Your task to perform on an android device: change the upload size in google photos Image 0: 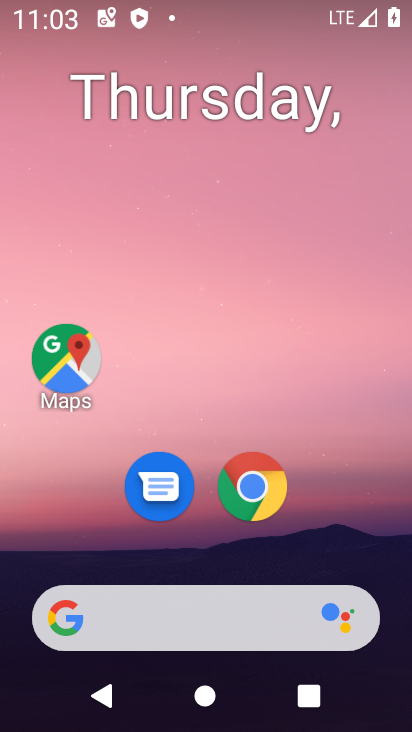
Step 0: drag from (138, 429) to (20, 29)
Your task to perform on an android device: change the upload size in google photos Image 1: 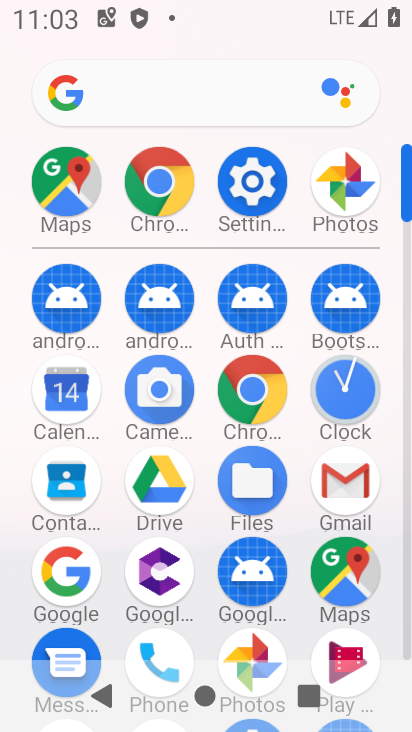
Step 1: click (251, 647)
Your task to perform on an android device: change the upload size in google photos Image 2: 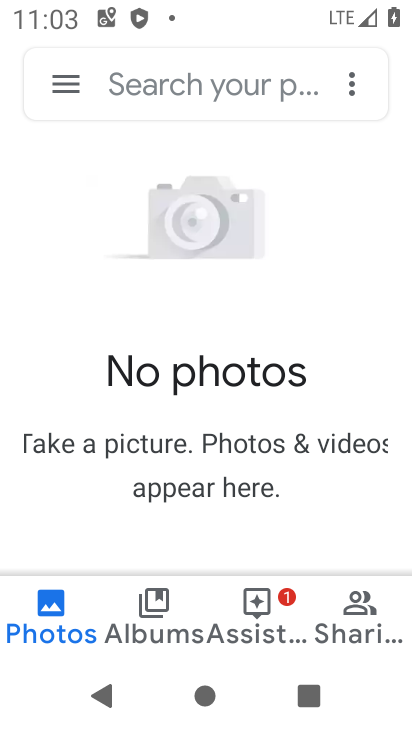
Step 2: click (62, 78)
Your task to perform on an android device: change the upload size in google photos Image 3: 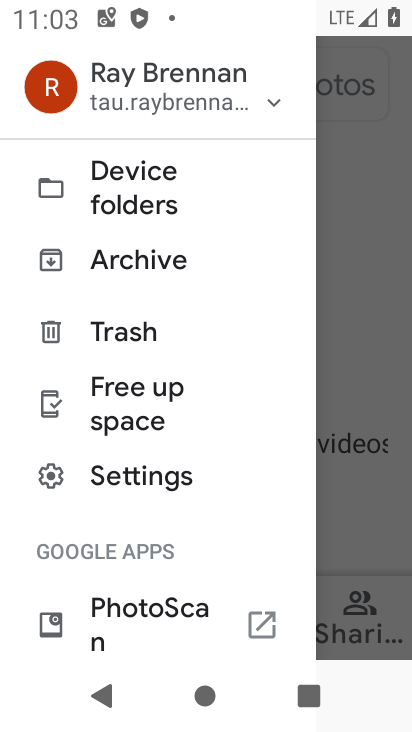
Step 3: drag from (141, 621) to (239, 21)
Your task to perform on an android device: change the upload size in google photos Image 4: 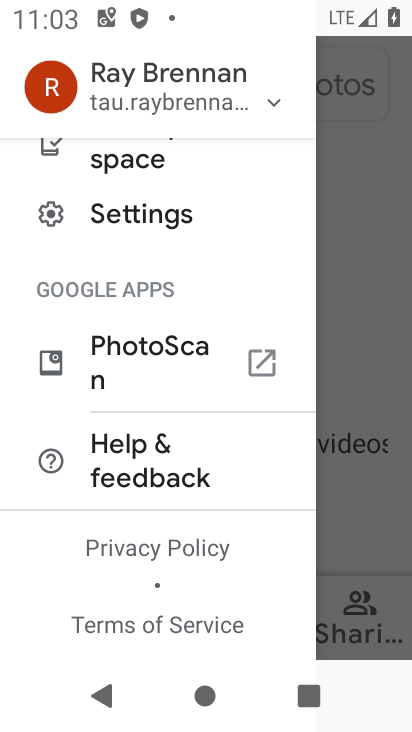
Step 4: click (121, 212)
Your task to perform on an android device: change the upload size in google photos Image 5: 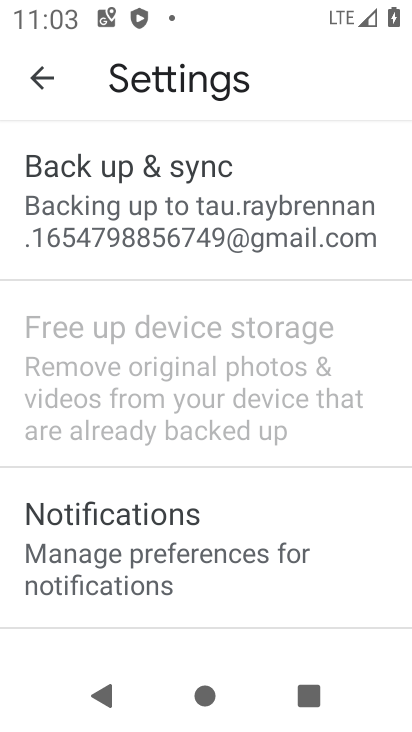
Step 5: click (180, 202)
Your task to perform on an android device: change the upload size in google photos Image 6: 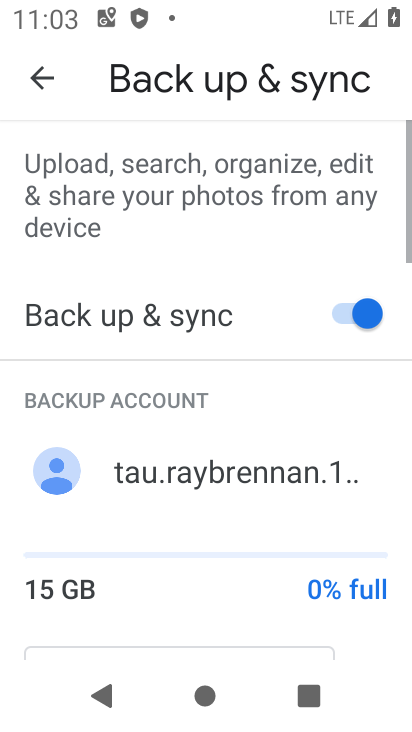
Step 6: drag from (161, 548) to (204, 107)
Your task to perform on an android device: change the upload size in google photos Image 7: 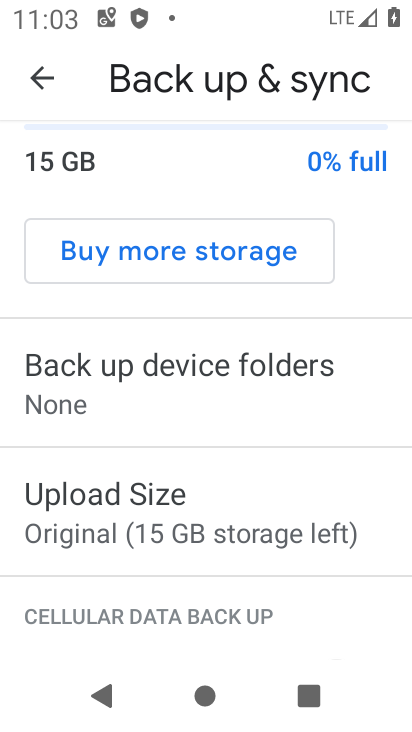
Step 7: click (133, 525)
Your task to perform on an android device: change the upload size in google photos Image 8: 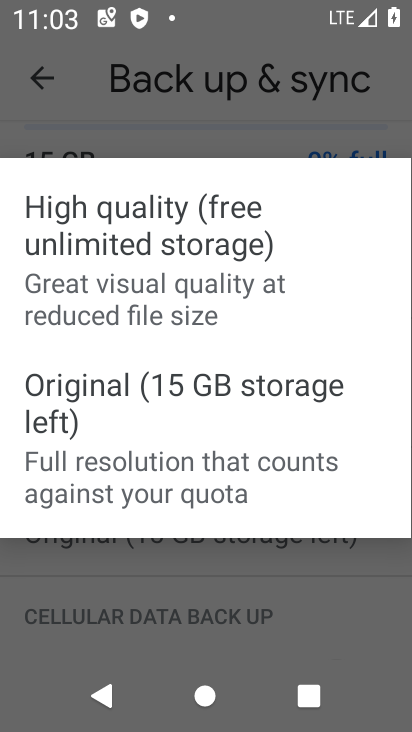
Step 8: click (91, 251)
Your task to perform on an android device: change the upload size in google photos Image 9: 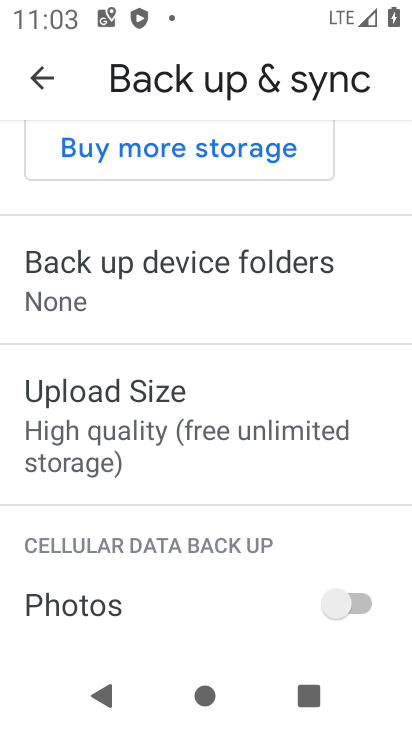
Step 9: task complete